Your task to perform on an android device: turn on sleep mode Image 0: 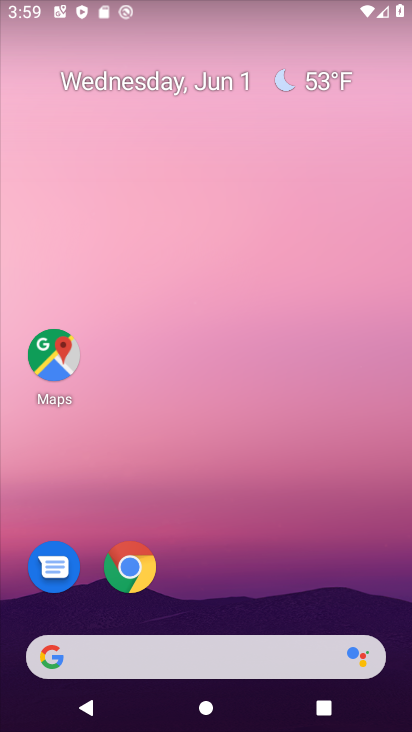
Step 0: drag from (211, 619) to (295, 125)
Your task to perform on an android device: turn on sleep mode Image 1: 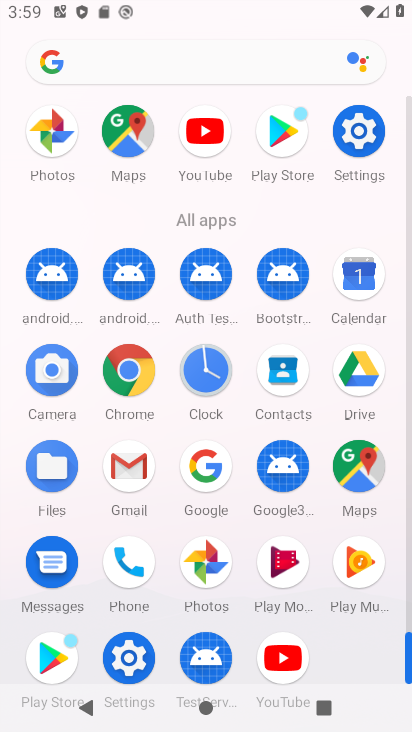
Step 1: click (136, 669)
Your task to perform on an android device: turn on sleep mode Image 2: 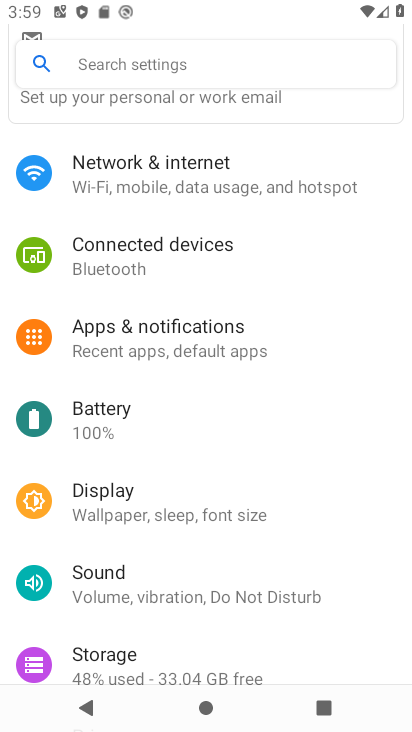
Step 2: click (179, 515)
Your task to perform on an android device: turn on sleep mode Image 3: 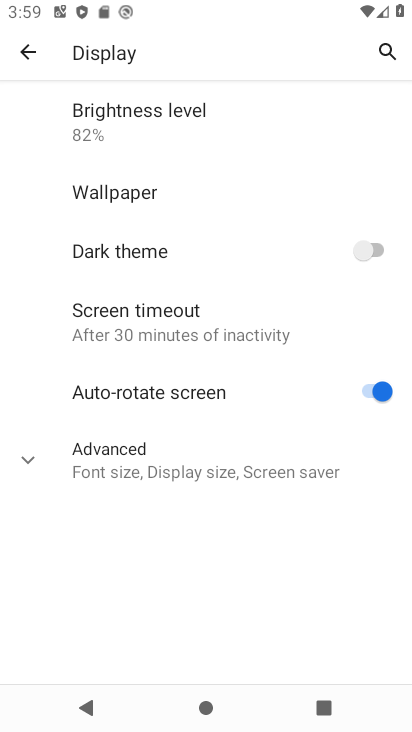
Step 3: click (273, 473)
Your task to perform on an android device: turn on sleep mode Image 4: 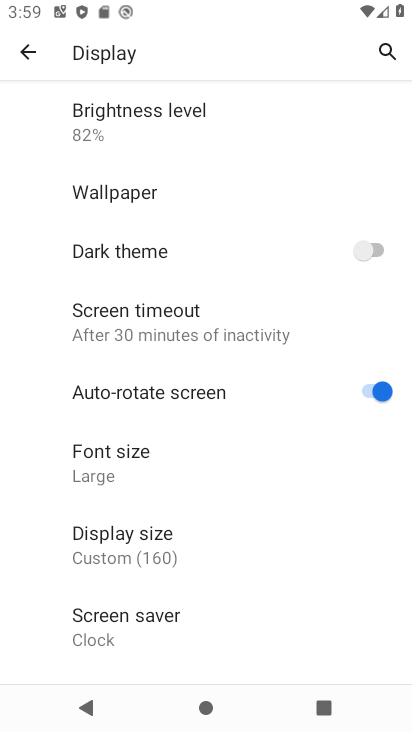
Step 4: task complete